Your task to perform on an android device: Go to eBay Image 0: 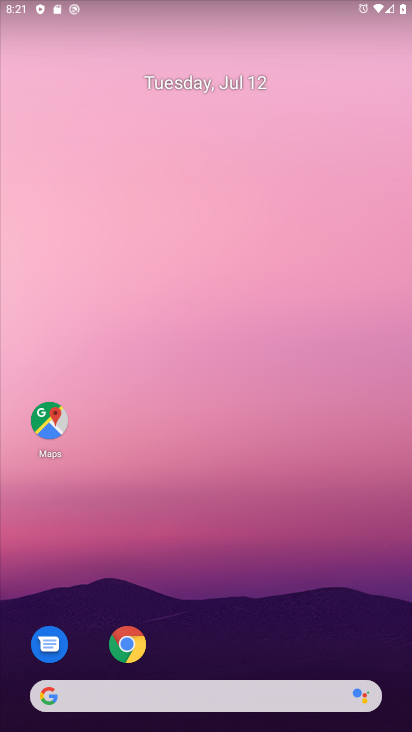
Step 0: click (74, 697)
Your task to perform on an android device: Go to eBay Image 1: 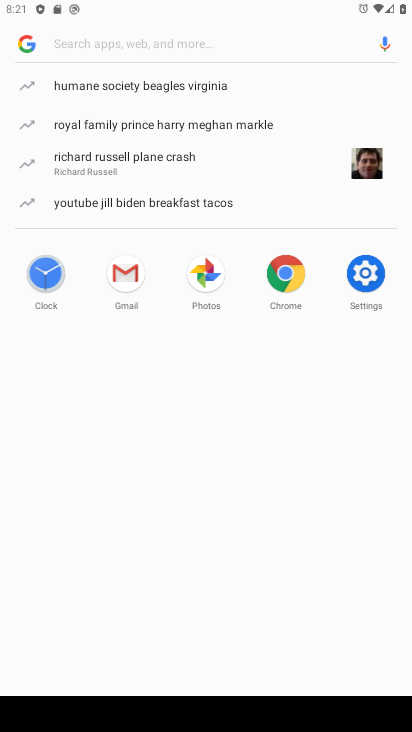
Step 1: type "eBay"
Your task to perform on an android device: Go to eBay Image 2: 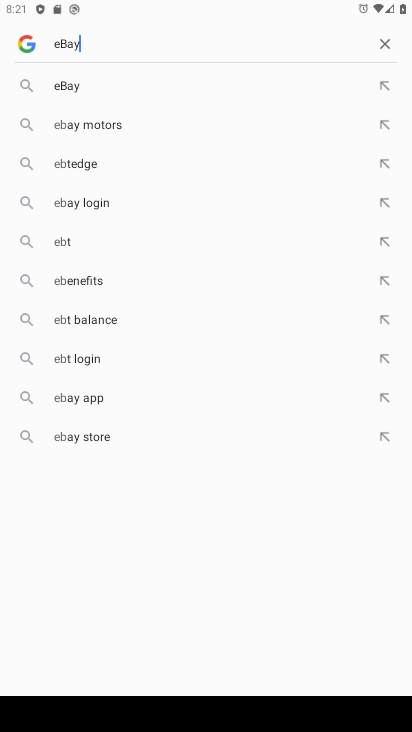
Step 2: type ""
Your task to perform on an android device: Go to eBay Image 3: 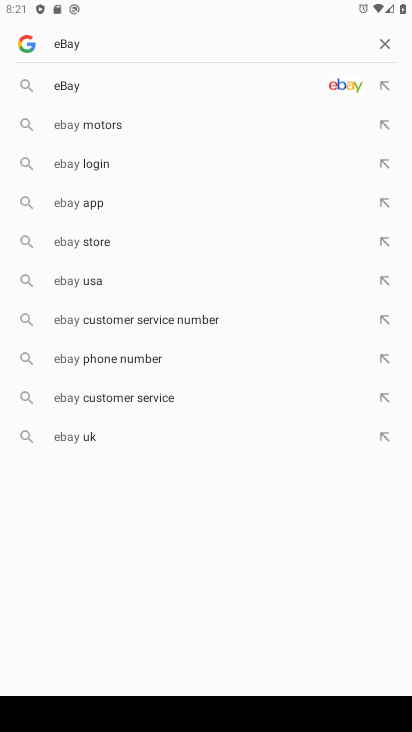
Step 3: click (89, 85)
Your task to perform on an android device: Go to eBay Image 4: 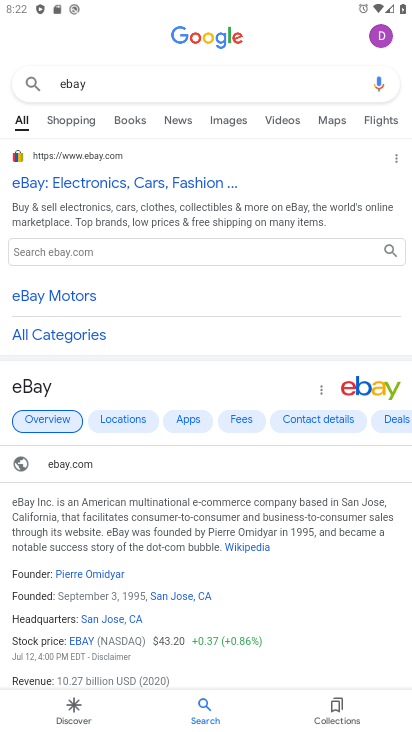
Step 4: task complete